Your task to perform on an android device: Do I have any events this weekend? Image 0: 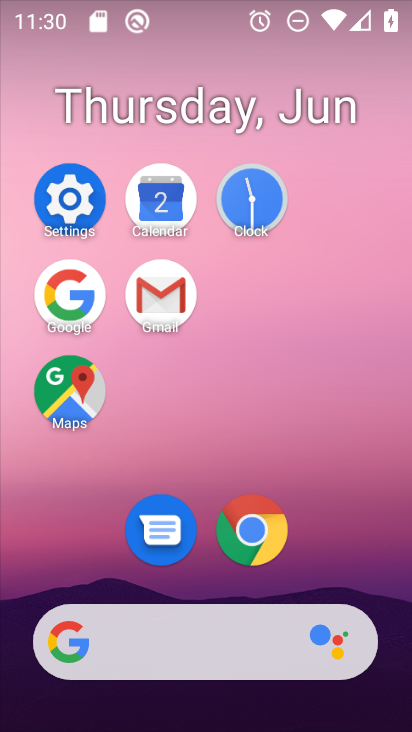
Step 0: click (167, 205)
Your task to perform on an android device: Do I have any events this weekend? Image 1: 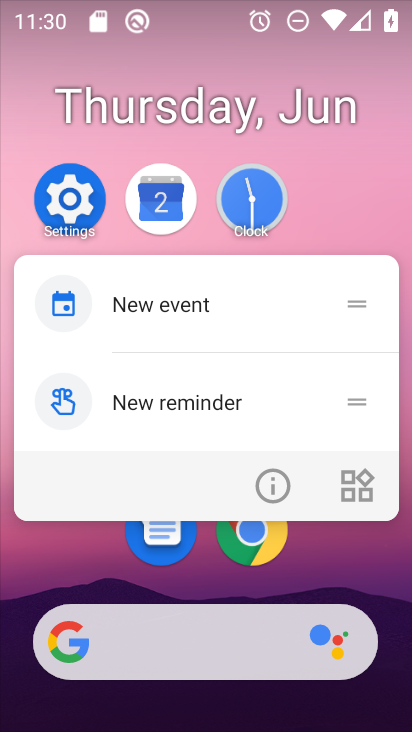
Step 1: click (170, 205)
Your task to perform on an android device: Do I have any events this weekend? Image 2: 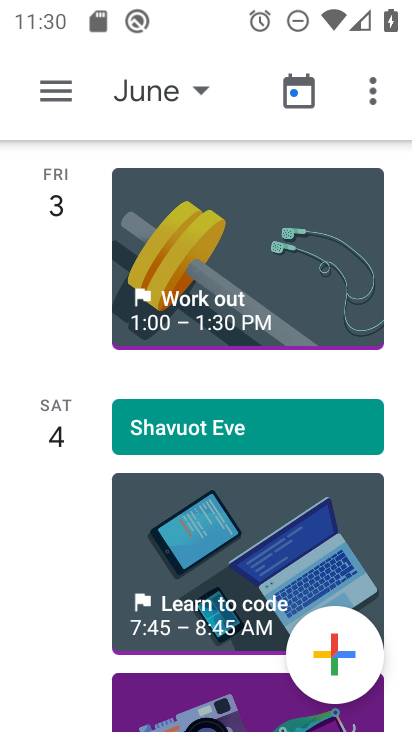
Step 2: click (66, 92)
Your task to perform on an android device: Do I have any events this weekend? Image 3: 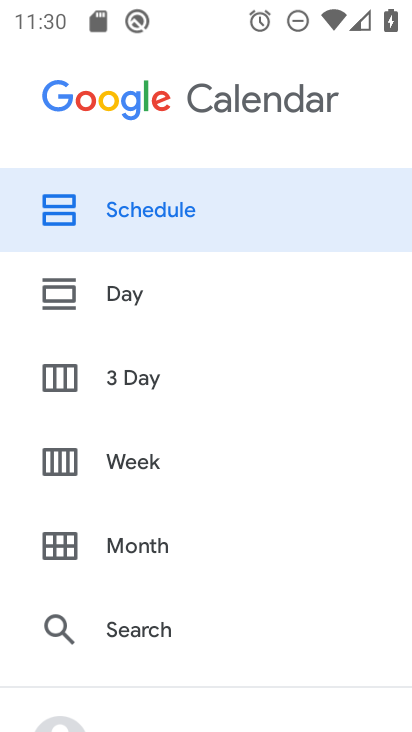
Step 3: click (194, 466)
Your task to perform on an android device: Do I have any events this weekend? Image 4: 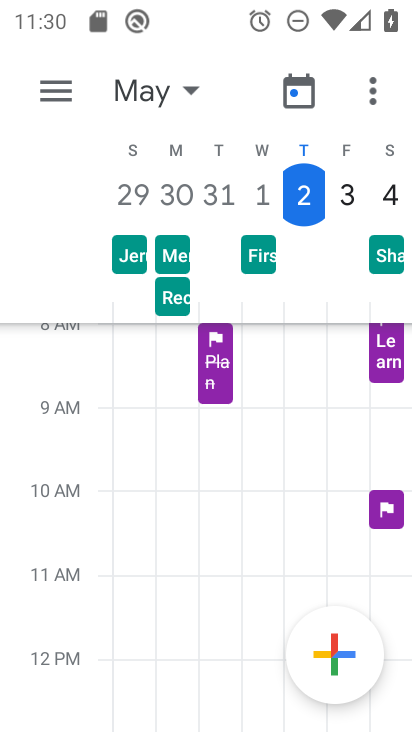
Step 4: task complete